Your task to perform on an android device: Go to network settings Image 0: 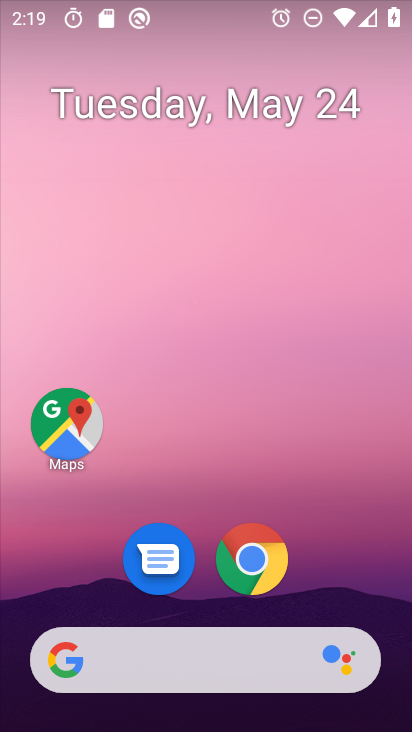
Step 0: drag from (392, 690) to (287, 150)
Your task to perform on an android device: Go to network settings Image 1: 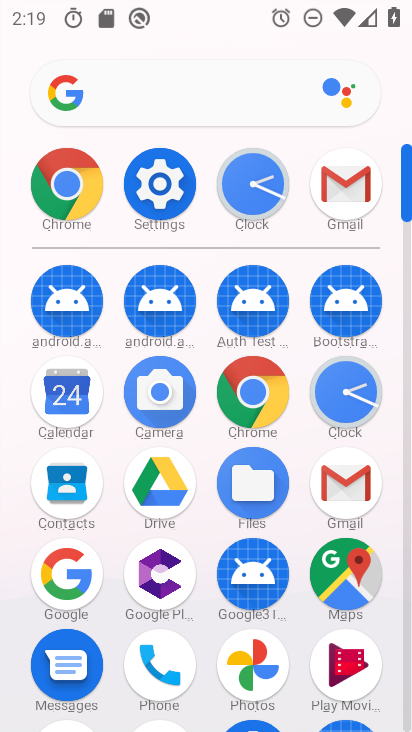
Step 1: click (148, 164)
Your task to perform on an android device: Go to network settings Image 2: 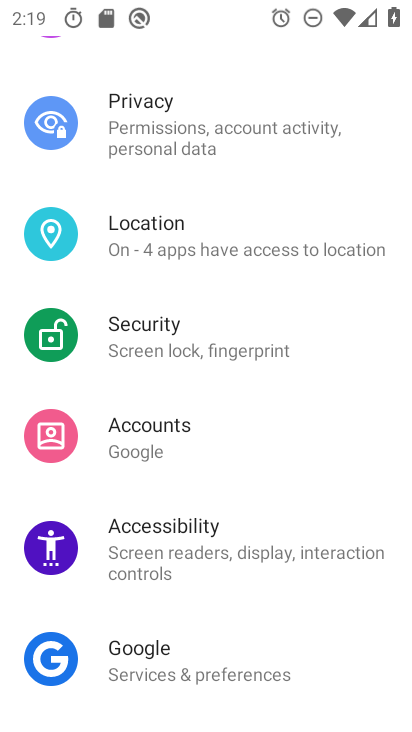
Step 2: drag from (369, 147) to (352, 675)
Your task to perform on an android device: Go to network settings Image 3: 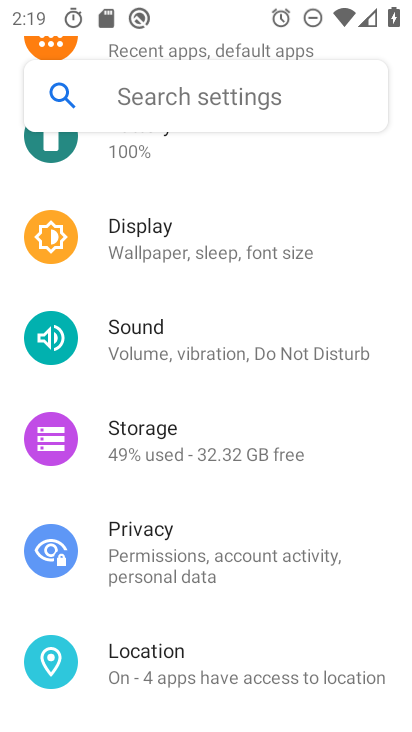
Step 3: drag from (325, 163) to (319, 634)
Your task to perform on an android device: Go to network settings Image 4: 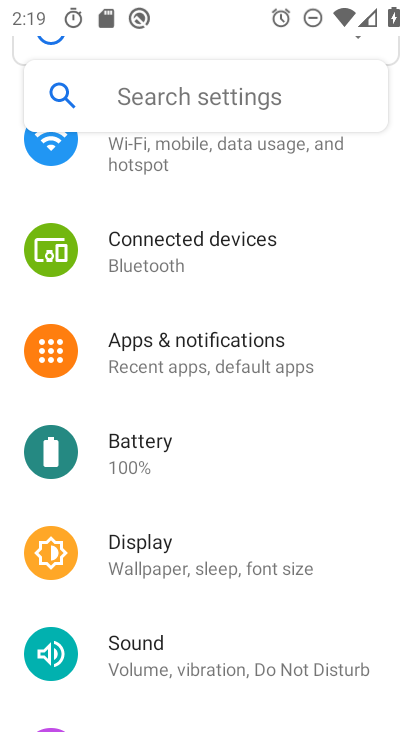
Step 4: drag from (377, 179) to (381, 623)
Your task to perform on an android device: Go to network settings Image 5: 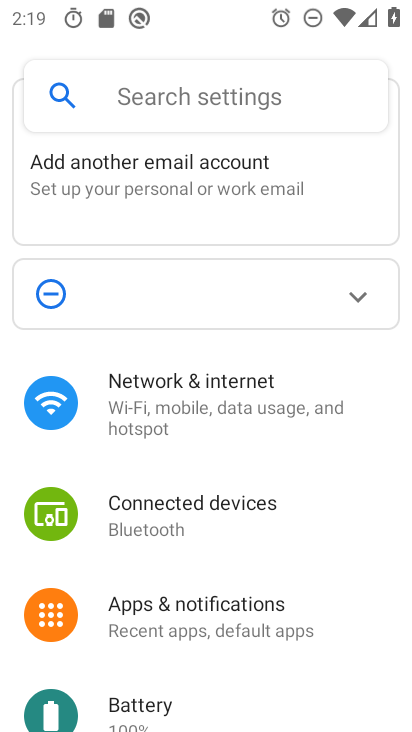
Step 5: click (171, 392)
Your task to perform on an android device: Go to network settings Image 6: 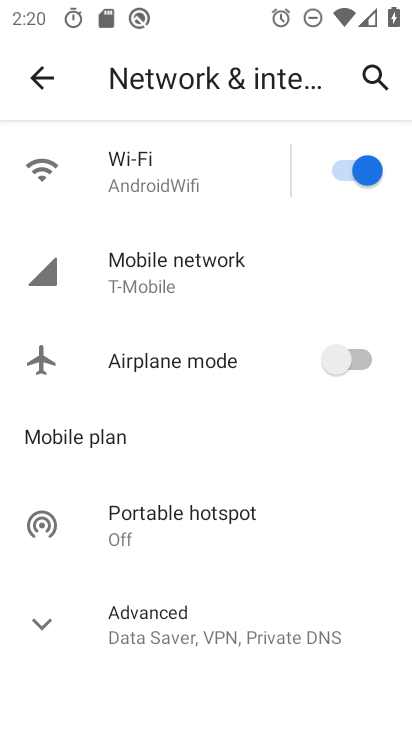
Step 6: click (131, 285)
Your task to perform on an android device: Go to network settings Image 7: 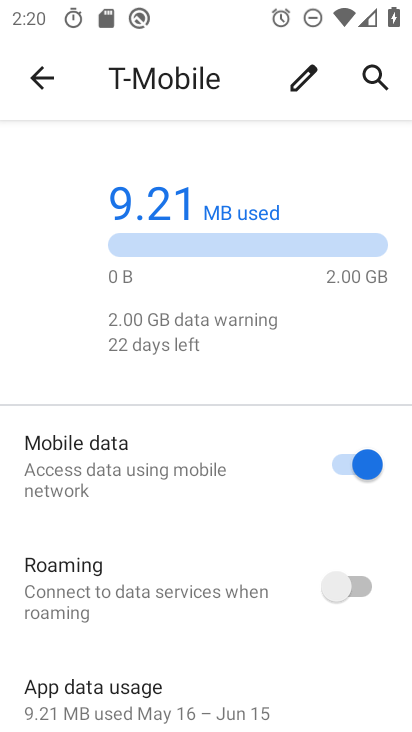
Step 7: drag from (240, 663) to (266, 225)
Your task to perform on an android device: Go to network settings Image 8: 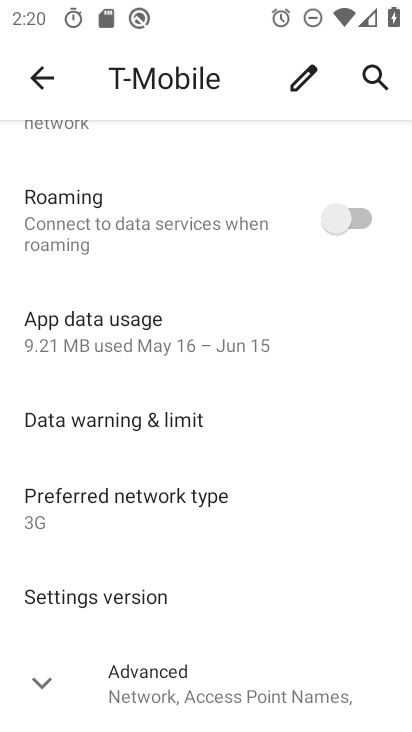
Step 8: drag from (205, 620) to (171, 299)
Your task to perform on an android device: Go to network settings Image 9: 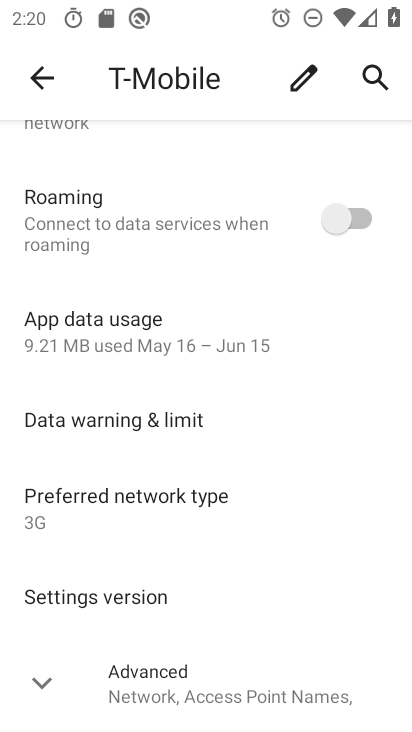
Step 9: click (43, 688)
Your task to perform on an android device: Go to network settings Image 10: 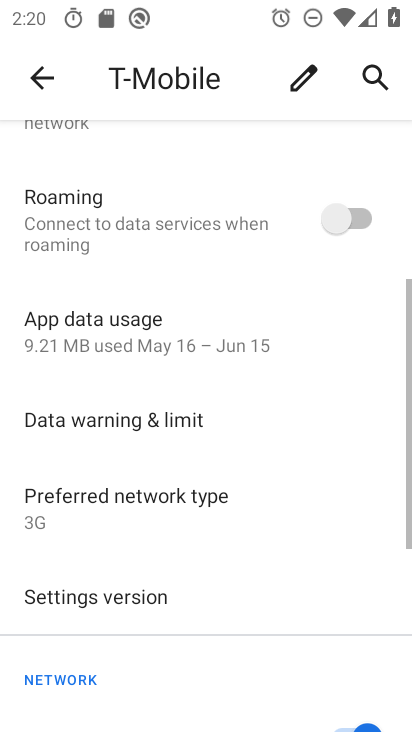
Step 10: task complete